Your task to perform on an android device: Open calendar and show me the second week of next month Image 0: 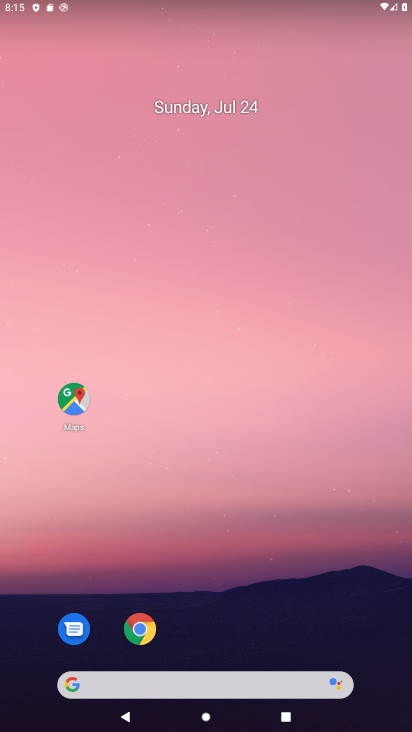
Step 0: drag from (237, 599) to (239, 208)
Your task to perform on an android device: Open calendar and show me the second week of next month Image 1: 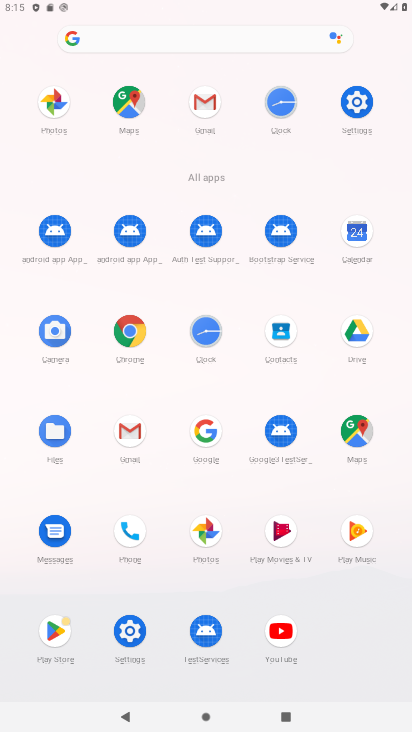
Step 1: click (359, 239)
Your task to perform on an android device: Open calendar and show me the second week of next month Image 2: 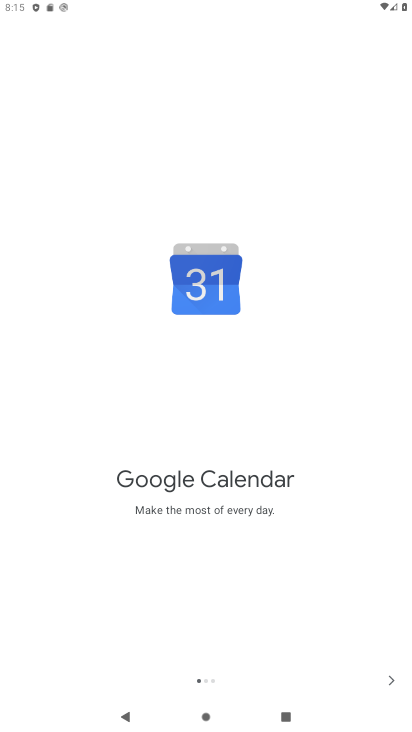
Step 2: click (390, 671)
Your task to perform on an android device: Open calendar and show me the second week of next month Image 3: 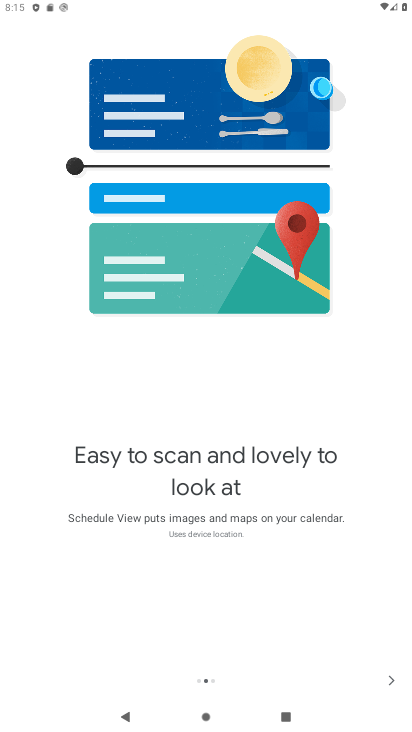
Step 3: click (390, 671)
Your task to perform on an android device: Open calendar and show me the second week of next month Image 4: 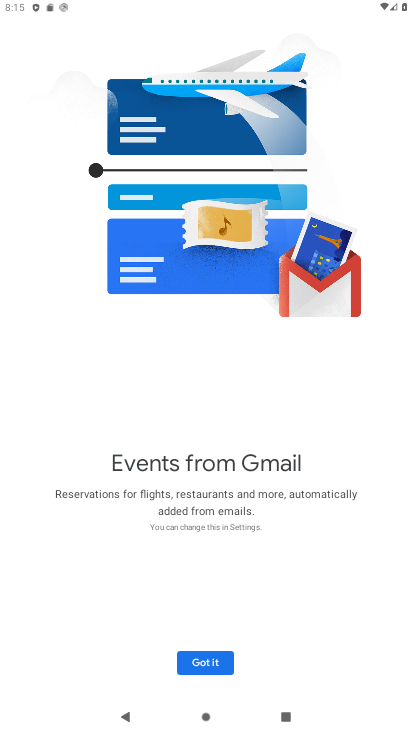
Step 4: click (206, 655)
Your task to perform on an android device: Open calendar and show me the second week of next month Image 5: 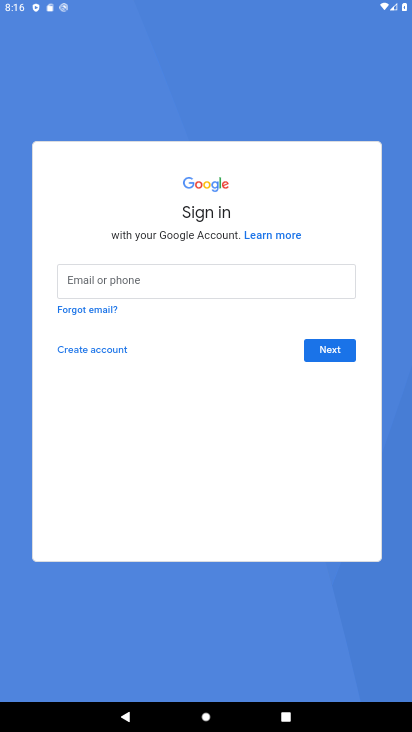
Step 5: task complete